Your task to perform on an android device: change text size in settings app Image 0: 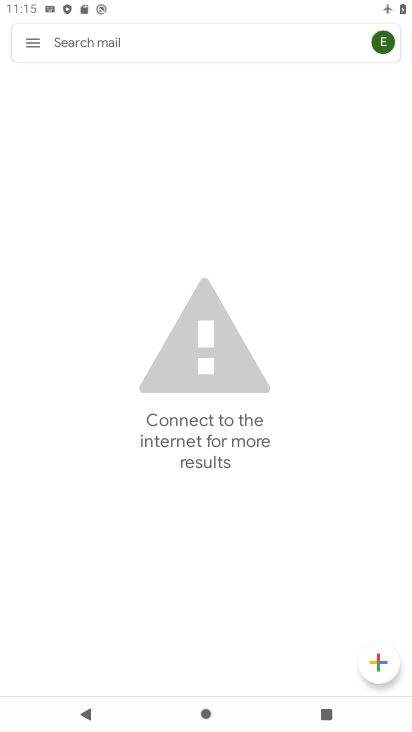
Step 0: press home button
Your task to perform on an android device: change text size in settings app Image 1: 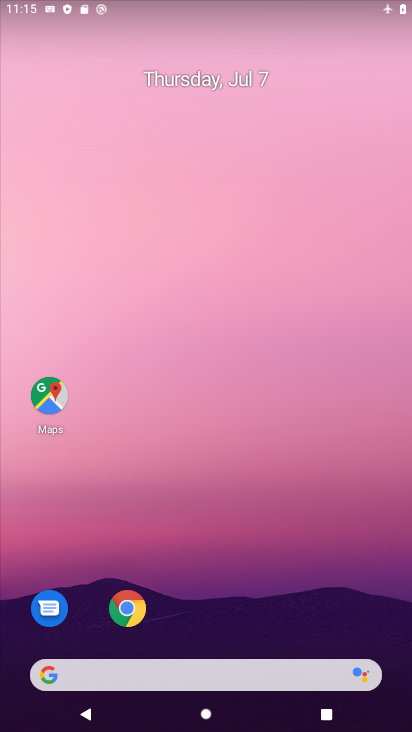
Step 1: drag from (249, 587) to (308, 0)
Your task to perform on an android device: change text size in settings app Image 2: 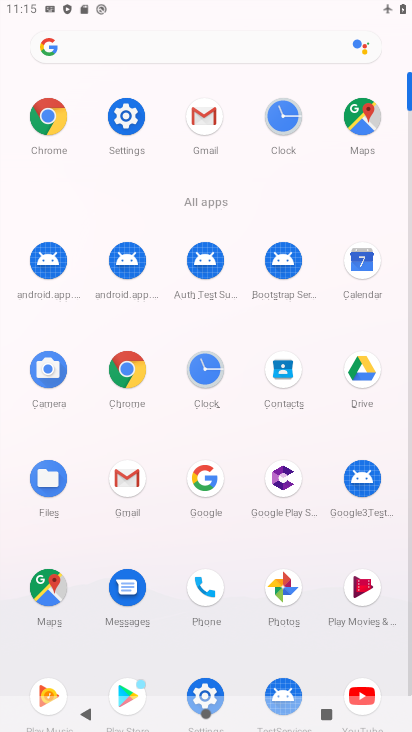
Step 2: drag from (172, 629) to (184, 338)
Your task to perform on an android device: change text size in settings app Image 3: 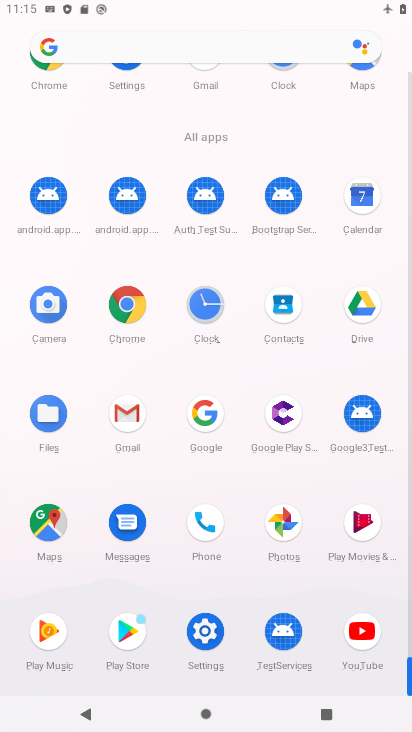
Step 3: click (203, 634)
Your task to perform on an android device: change text size in settings app Image 4: 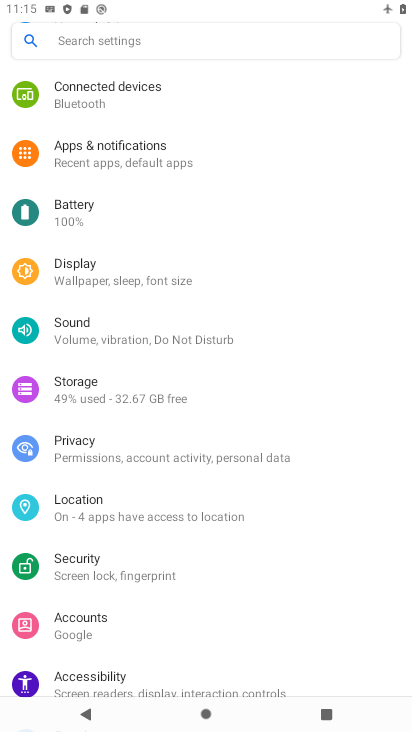
Step 4: click (109, 287)
Your task to perform on an android device: change text size in settings app Image 5: 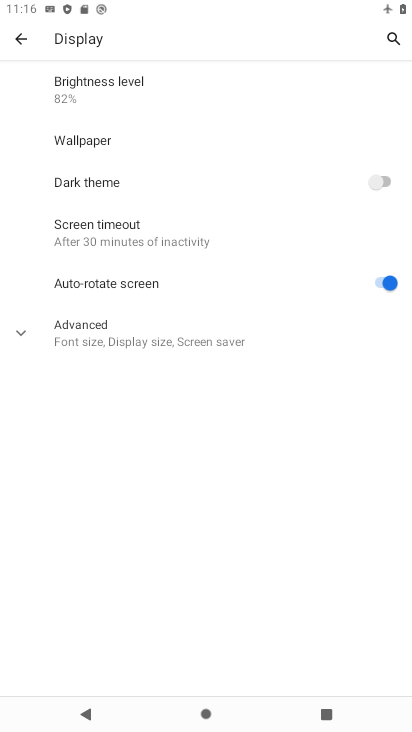
Step 5: click (77, 334)
Your task to perform on an android device: change text size in settings app Image 6: 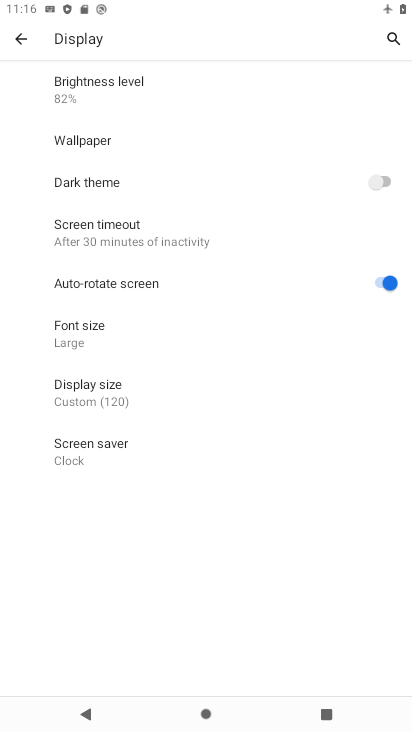
Step 6: click (86, 340)
Your task to perform on an android device: change text size in settings app Image 7: 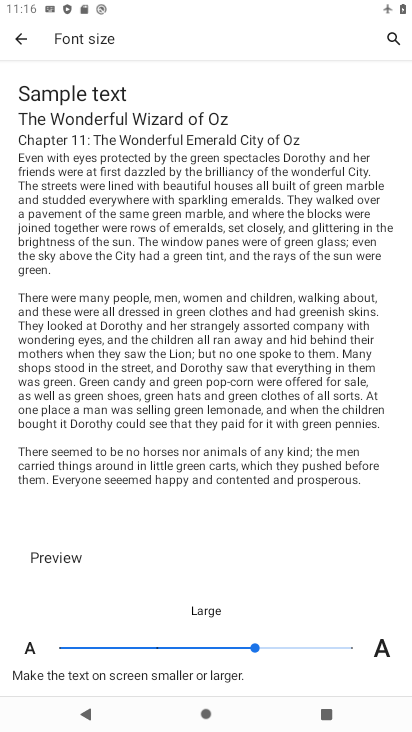
Step 7: click (352, 645)
Your task to perform on an android device: change text size in settings app Image 8: 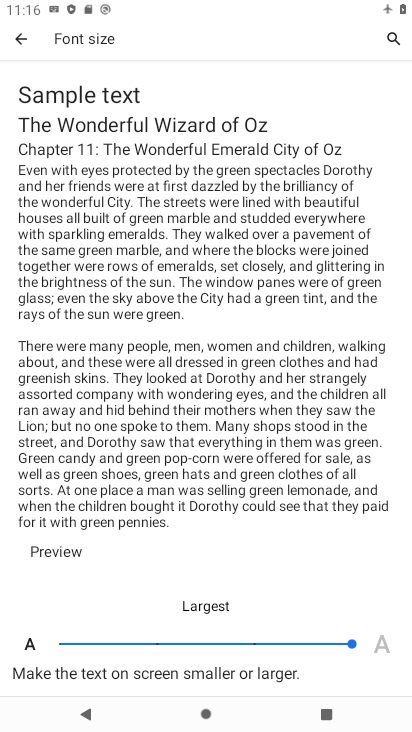
Step 8: task complete